Your task to perform on an android device: Show me recent news Image 0: 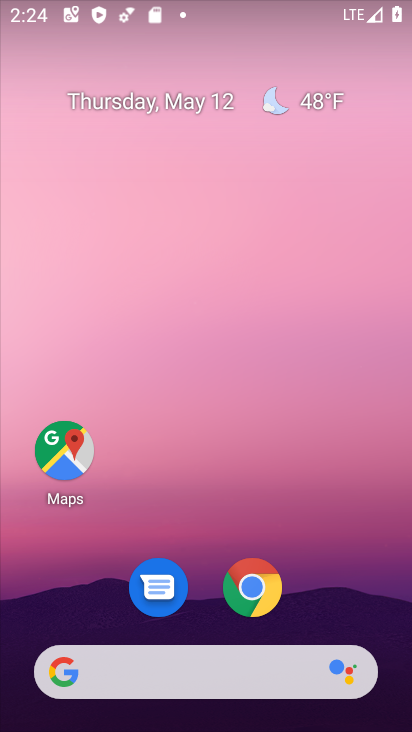
Step 0: drag from (234, 603) to (341, 0)
Your task to perform on an android device: Show me recent news Image 1: 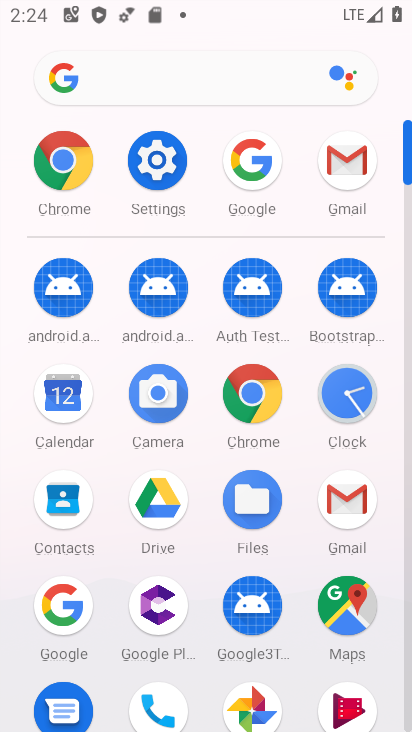
Step 1: drag from (249, 571) to (249, 299)
Your task to perform on an android device: Show me recent news Image 2: 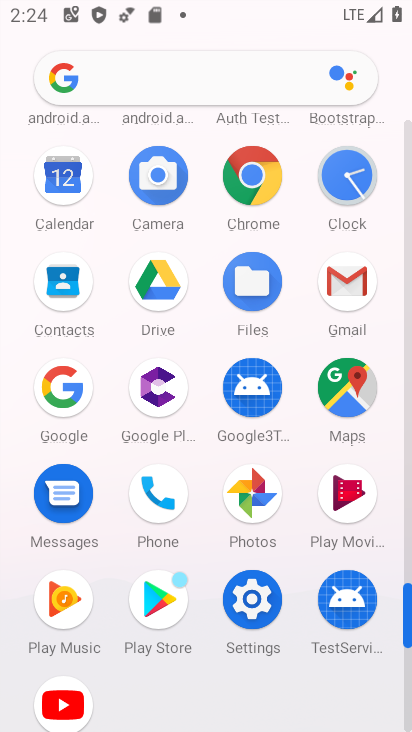
Step 2: click (76, 402)
Your task to perform on an android device: Show me recent news Image 3: 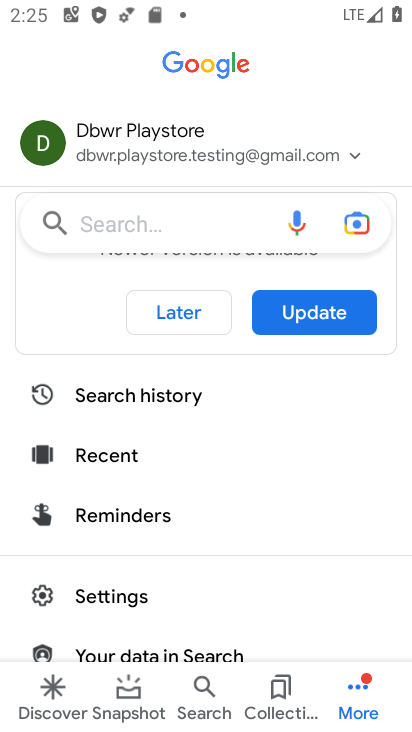
Step 3: click (56, 701)
Your task to perform on an android device: Show me recent news Image 4: 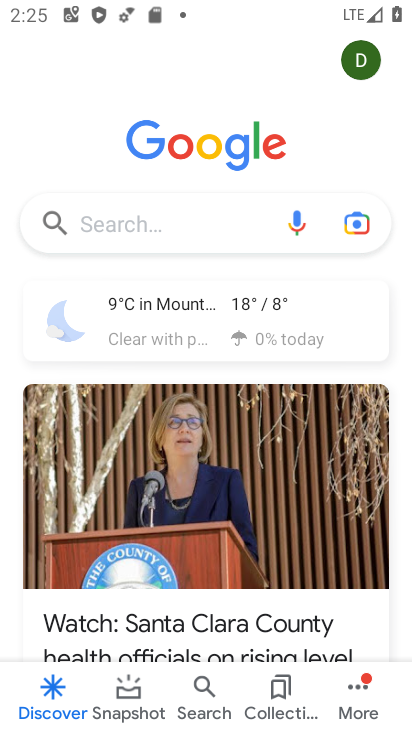
Step 4: click (162, 223)
Your task to perform on an android device: Show me recent news Image 5: 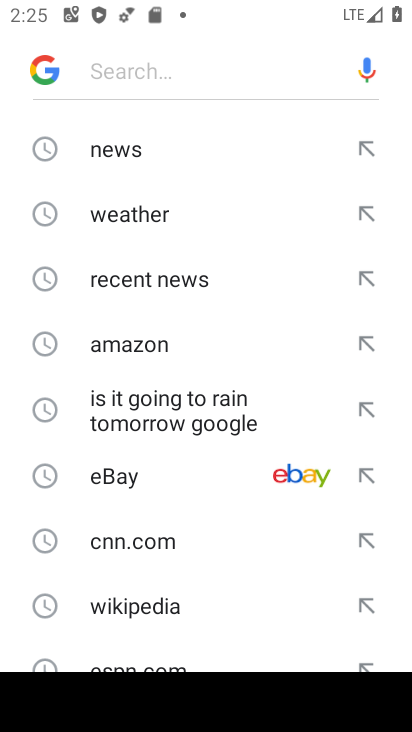
Step 5: click (205, 145)
Your task to perform on an android device: Show me recent news Image 6: 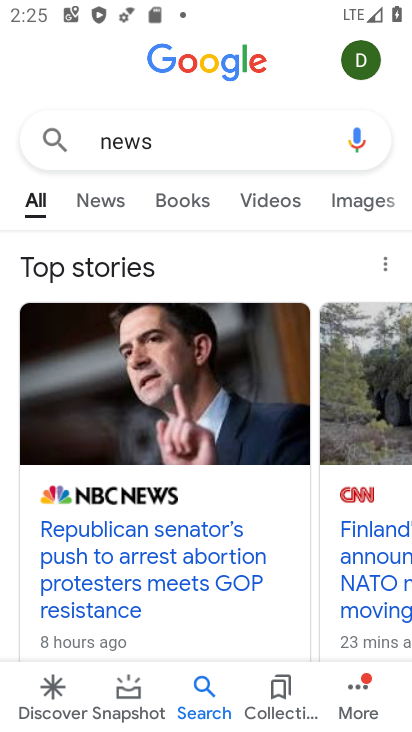
Step 6: click (97, 213)
Your task to perform on an android device: Show me recent news Image 7: 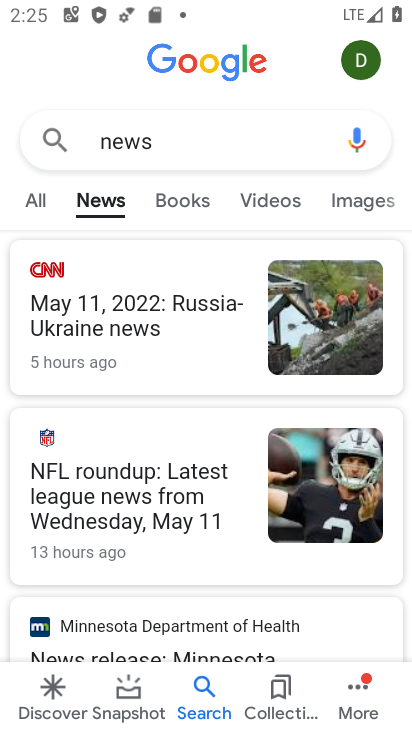
Step 7: task complete